Your task to perform on an android device: uninstall "Clock" Image 0: 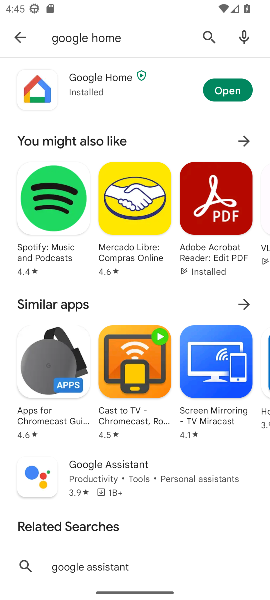
Step 0: press home button
Your task to perform on an android device: uninstall "Clock" Image 1: 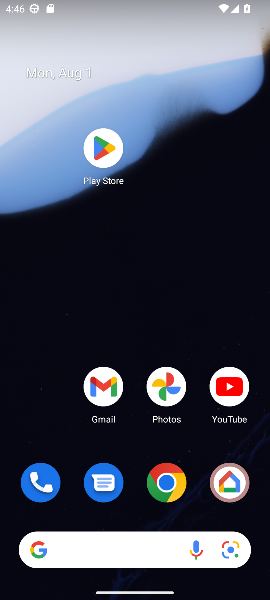
Step 1: click (106, 142)
Your task to perform on an android device: uninstall "Clock" Image 2: 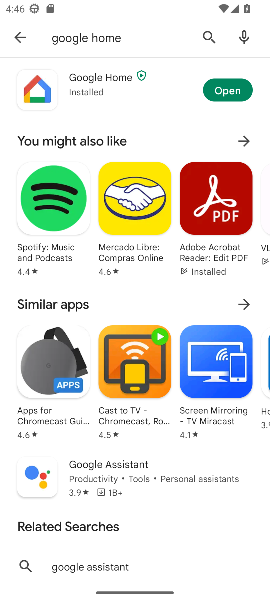
Step 2: click (210, 33)
Your task to perform on an android device: uninstall "Clock" Image 3: 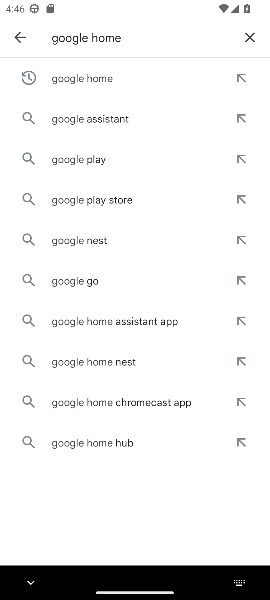
Step 3: click (247, 34)
Your task to perform on an android device: uninstall "Clock" Image 4: 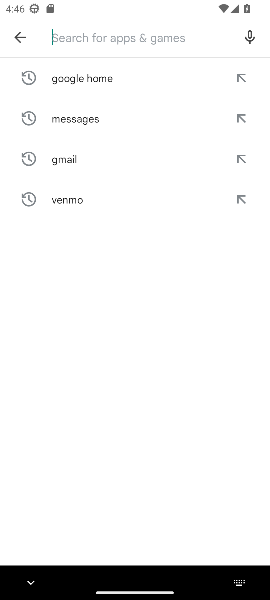
Step 4: type "Clock"
Your task to perform on an android device: uninstall "Clock" Image 5: 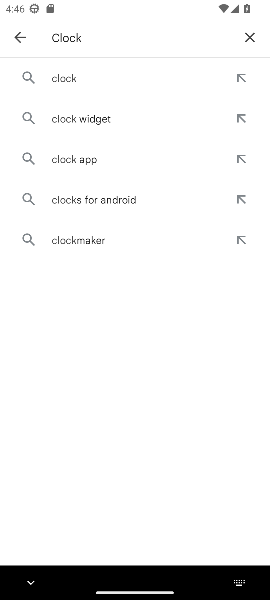
Step 5: click (61, 70)
Your task to perform on an android device: uninstall "Clock" Image 6: 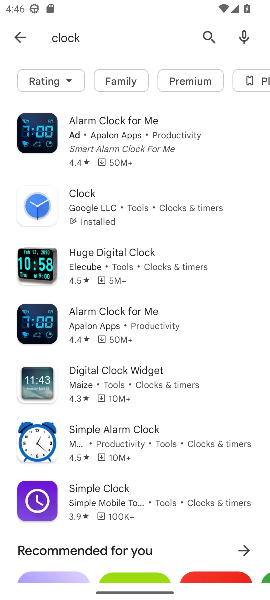
Step 6: click (115, 202)
Your task to perform on an android device: uninstall "Clock" Image 7: 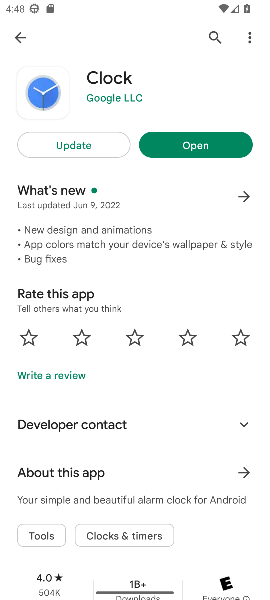
Step 7: task complete